Your task to perform on an android device: Show me popular games on the Play Store Image 0: 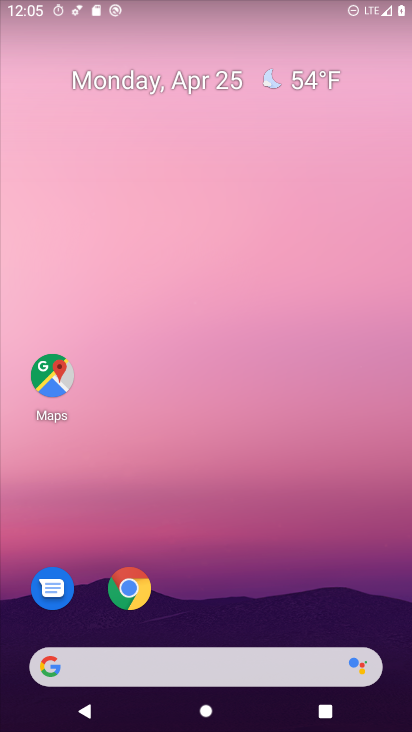
Step 0: drag from (202, 624) to (142, 86)
Your task to perform on an android device: Show me popular games on the Play Store Image 1: 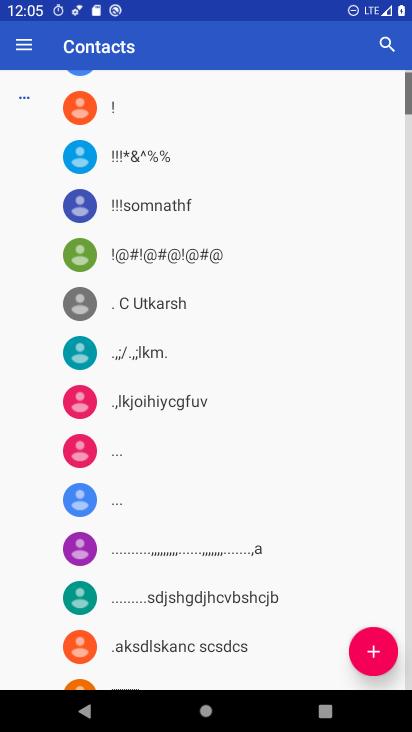
Step 1: press home button
Your task to perform on an android device: Show me popular games on the Play Store Image 2: 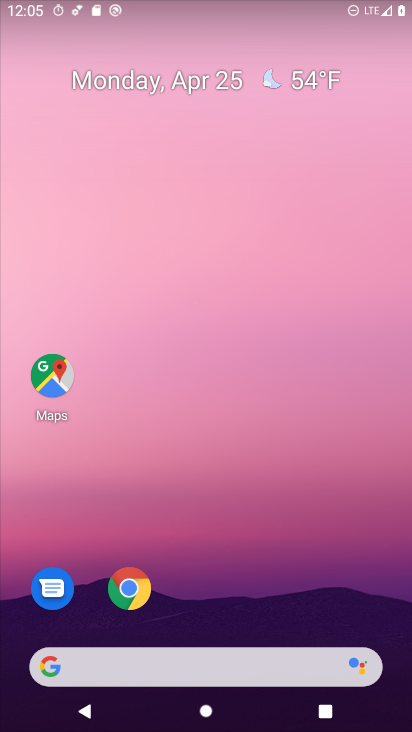
Step 2: drag from (212, 643) to (170, 1)
Your task to perform on an android device: Show me popular games on the Play Store Image 3: 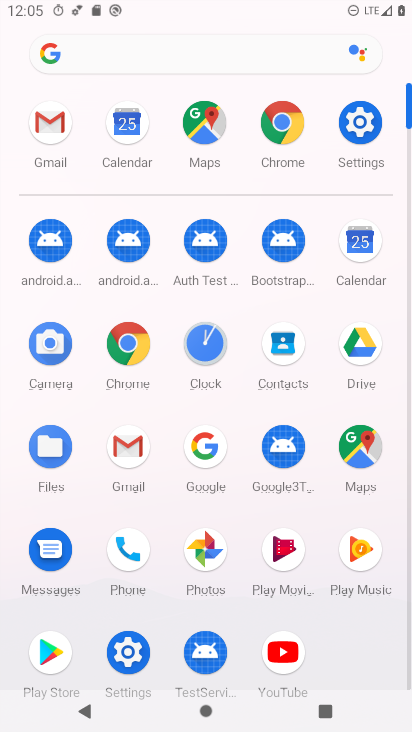
Step 3: click (54, 656)
Your task to perform on an android device: Show me popular games on the Play Store Image 4: 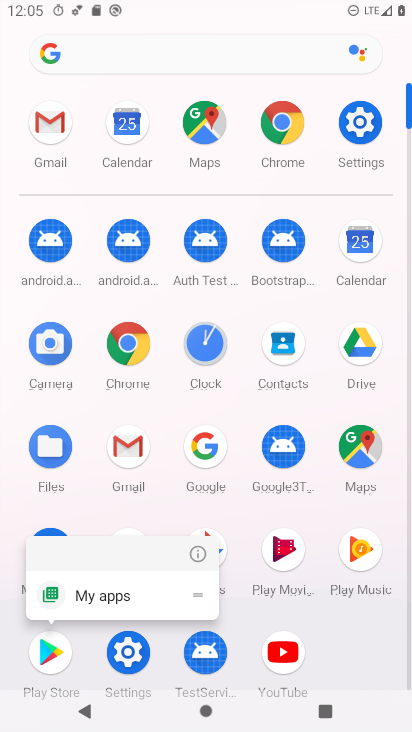
Step 4: click (43, 665)
Your task to perform on an android device: Show me popular games on the Play Store Image 5: 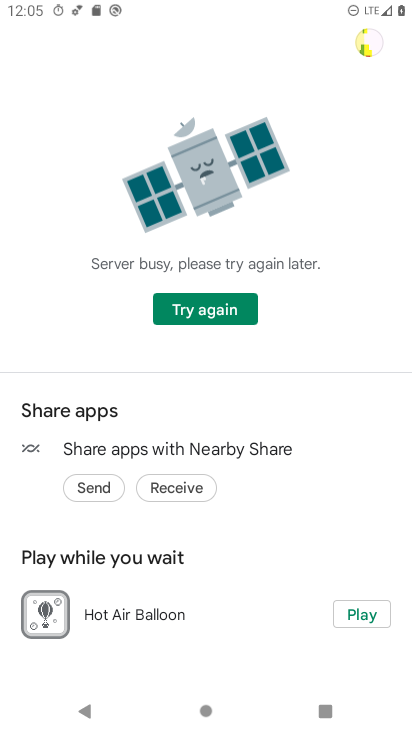
Step 5: click (191, 309)
Your task to perform on an android device: Show me popular games on the Play Store Image 6: 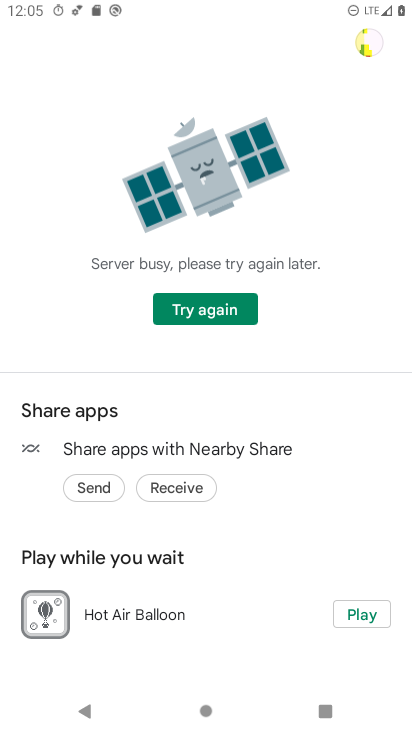
Step 6: task complete